Your task to perform on an android device: toggle location history Image 0: 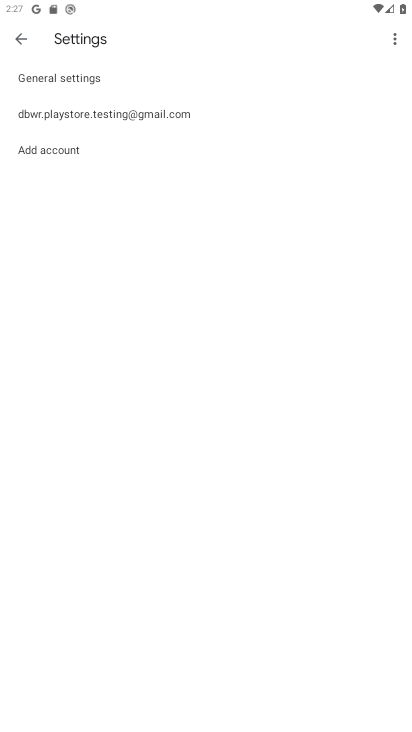
Step 0: press home button
Your task to perform on an android device: toggle location history Image 1: 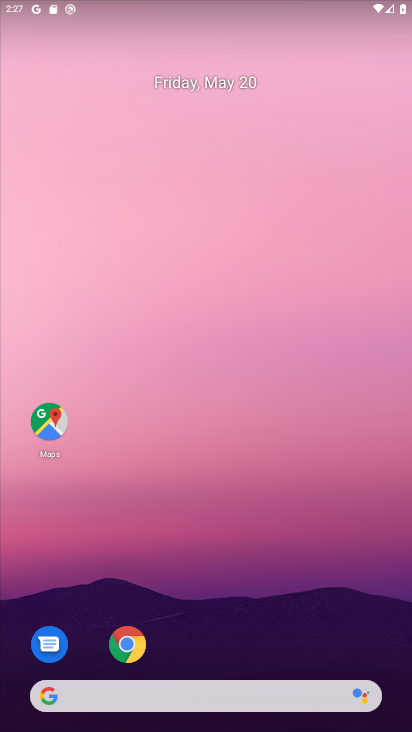
Step 1: drag from (240, 343) to (245, 246)
Your task to perform on an android device: toggle location history Image 2: 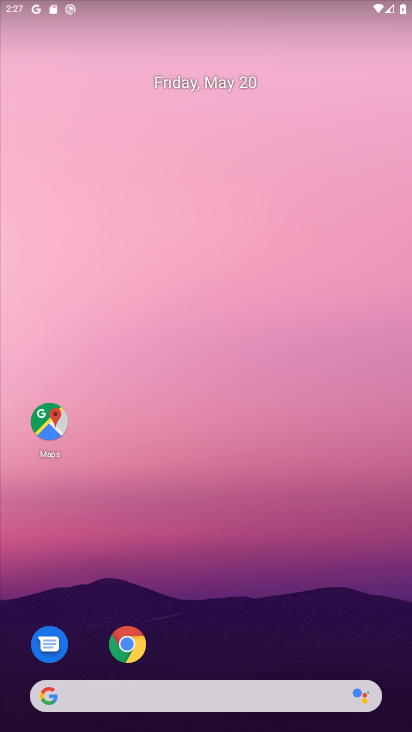
Step 2: drag from (262, 646) to (250, 204)
Your task to perform on an android device: toggle location history Image 3: 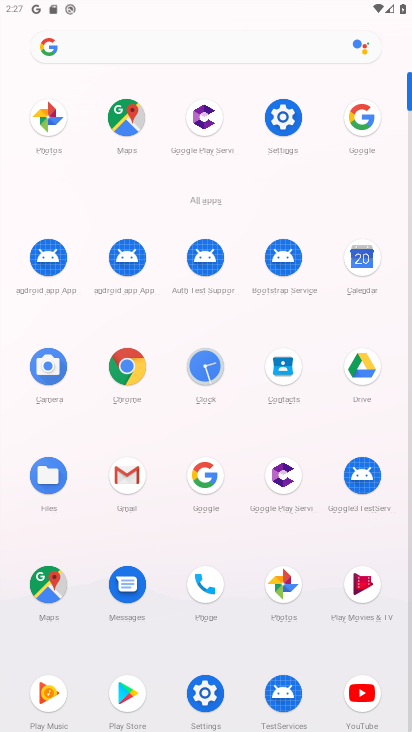
Step 3: click (285, 123)
Your task to perform on an android device: toggle location history Image 4: 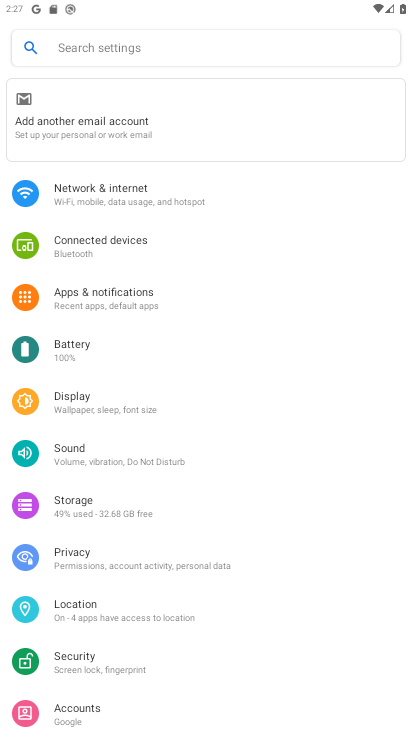
Step 4: click (124, 613)
Your task to perform on an android device: toggle location history Image 5: 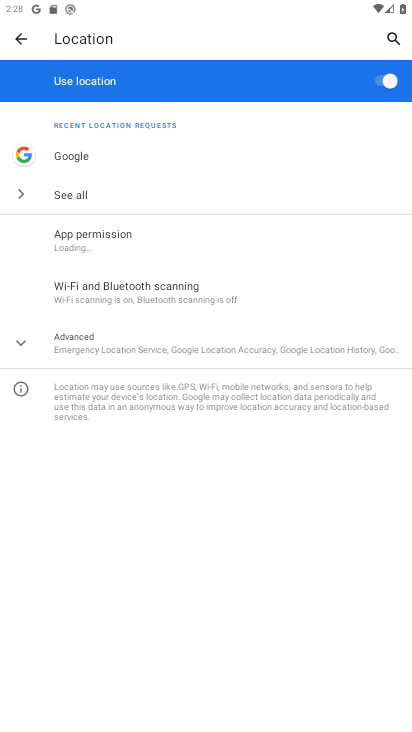
Step 5: click (33, 348)
Your task to perform on an android device: toggle location history Image 6: 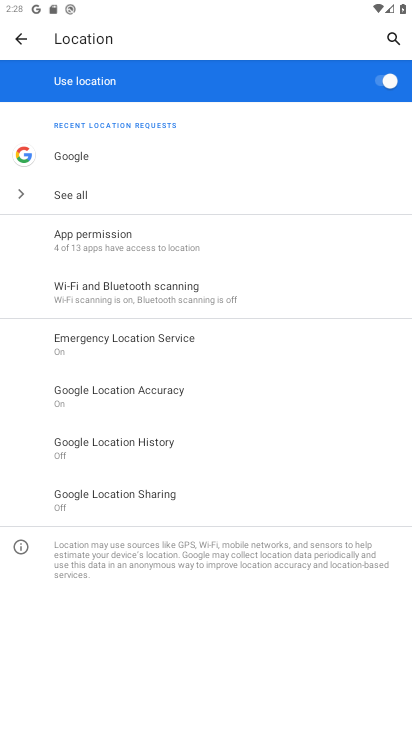
Step 6: click (162, 446)
Your task to perform on an android device: toggle location history Image 7: 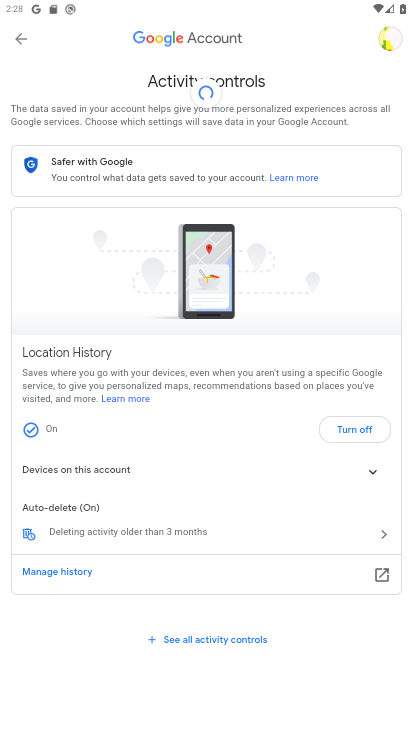
Step 7: click (356, 428)
Your task to perform on an android device: toggle location history Image 8: 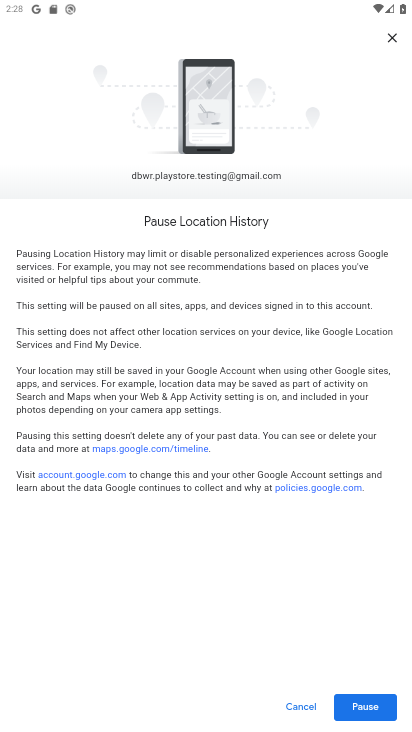
Step 8: click (369, 708)
Your task to perform on an android device: toggle location history Image 9: 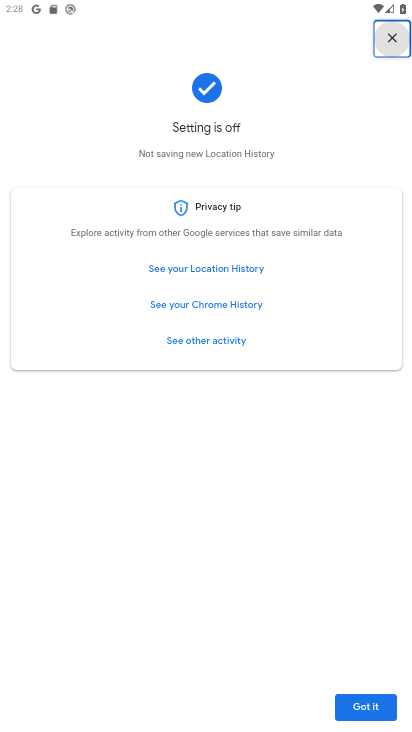
Step 9: click (366, 711)
Your task to perform on an android device: toggle location history Image 10: 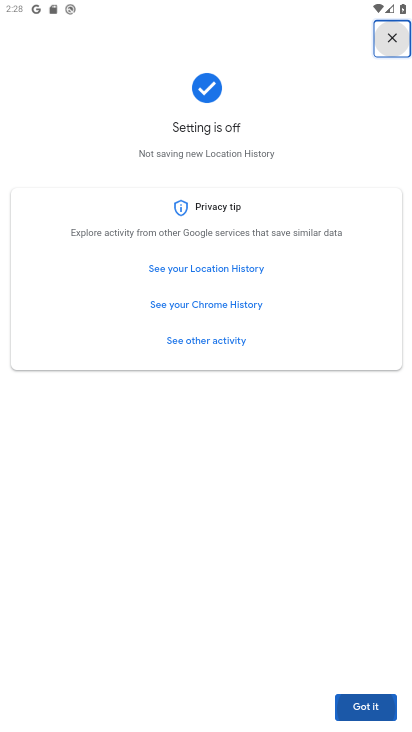
Step 10: task complete